Your task to perform on an android device: change the clock style Image 0: 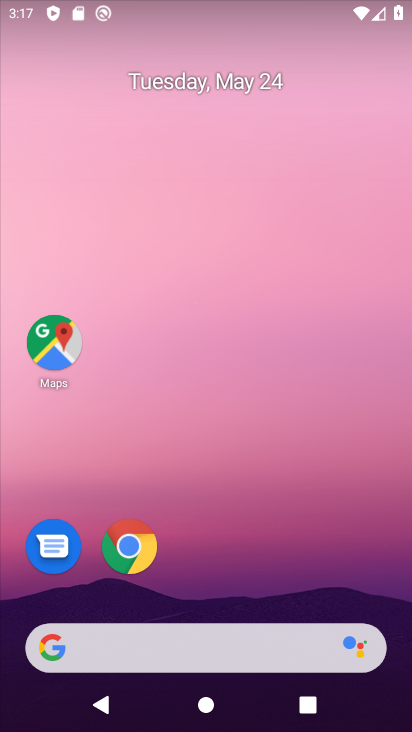
Step 0: drag from (251, 472) to (242, 221)
Your task to perform on an android device: change the clock style Image 1: 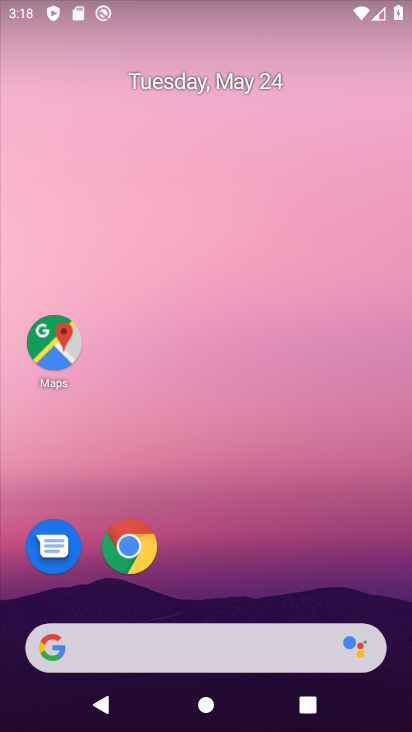
Step 1: drag from (222, 584) to (194, 321)
Your task to perform on an android device: change the clock style Image 2: 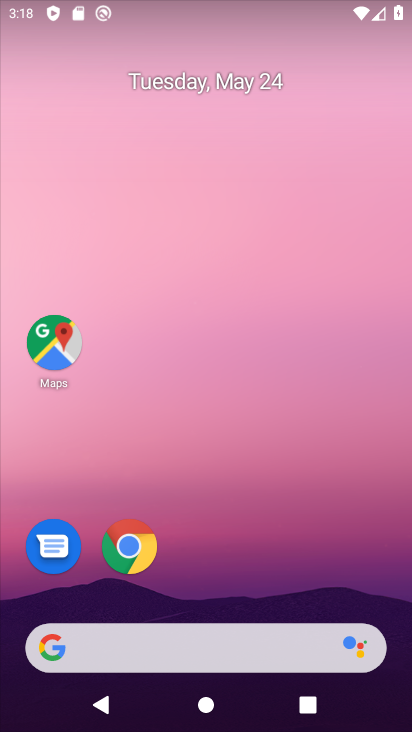
Step 2: drag from (260, 660) to (288, 170)
Your task to perform on an android device: change the clock style Image 3: 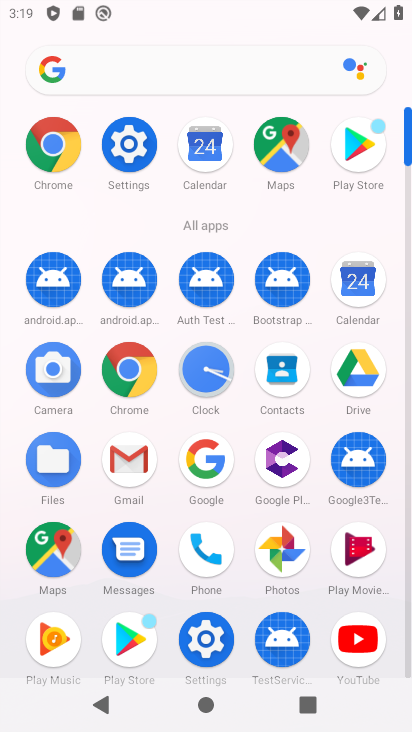
Step 3: click (210, 377)
Your task to perform on an android device: change the clock style Image 4: 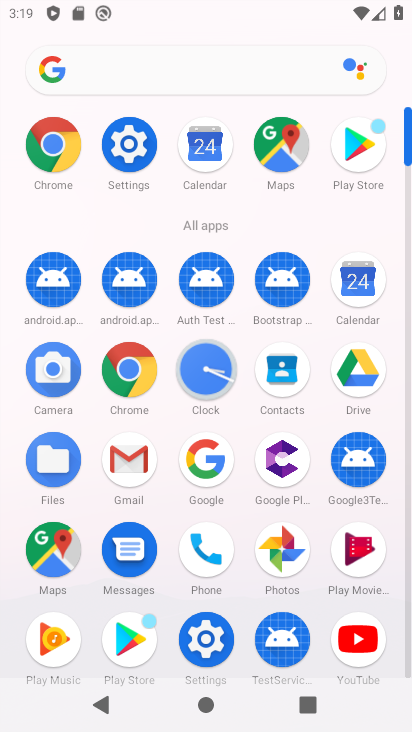
Step 4: click (210, 377)
Your task to perform on an android device: change the clock style Image 5: 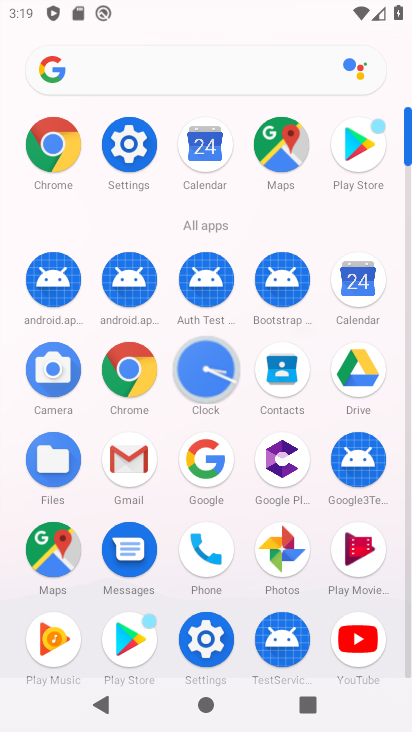
Step 5: click (211, 374)
Your task to perform on an android device: change the clock style Image 6: 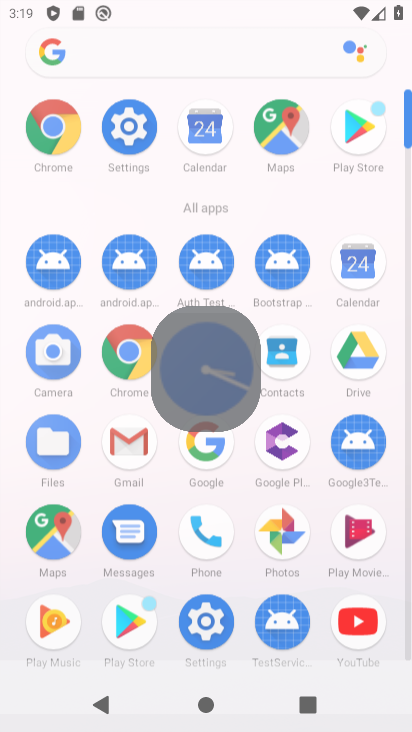
Step 6: click (211, 374)
Your task to perform on an android device: change the clock style Image 7: 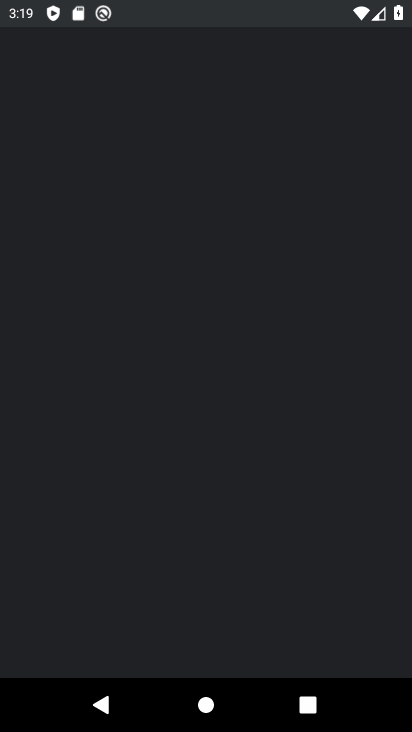
Step 7: click (212, 375)
Your task to perform on an android device: change the clock style Image 8: 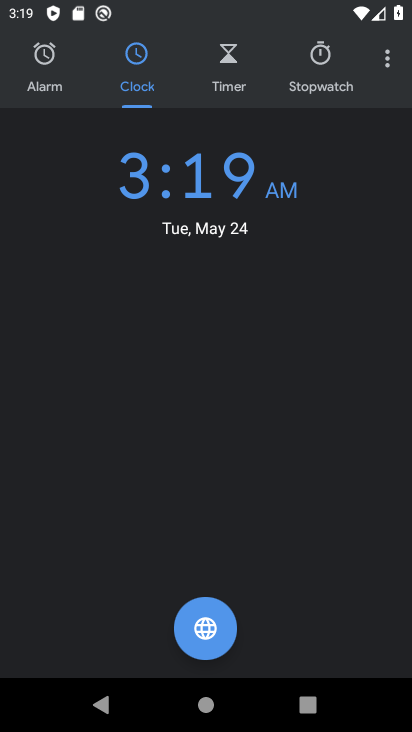
Step 8: click (383, 61)
Your task to perform on an android device: change the clock style Image 9: 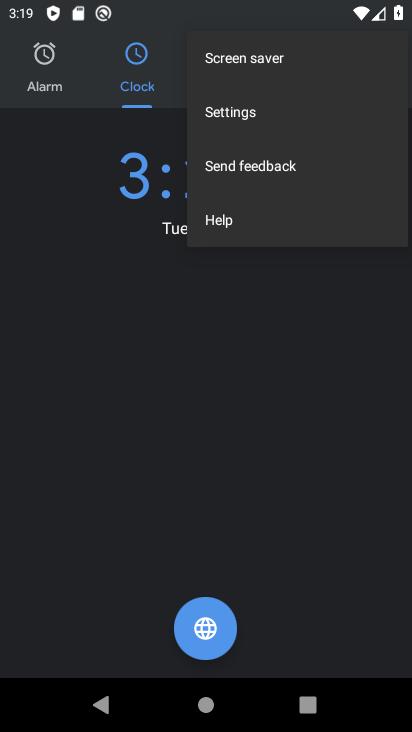
Step 9: click (248, 115)
Your task to perform on an android device: change the clock style Image 10: 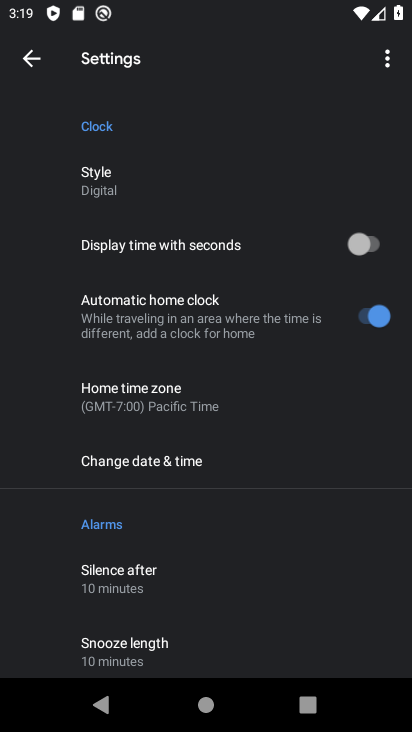
Step 10: click (131, 180)
Your task to perform on an android device: change the clock style Image 11: 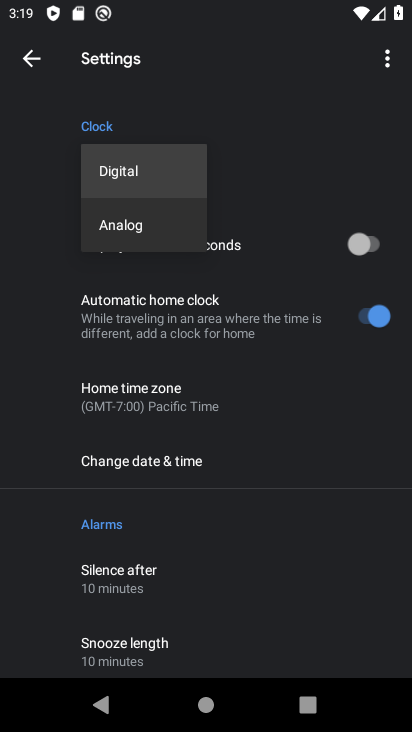
Step 11: click (127, 218)
Your task to perform on an android device: change the clock style Image 12: 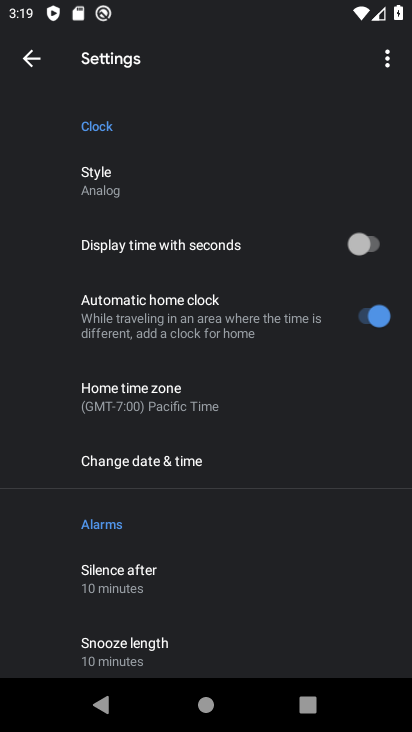
Step 12: task complete